Your task to perform on an android device: Open Chrome and go to settings Image 0: 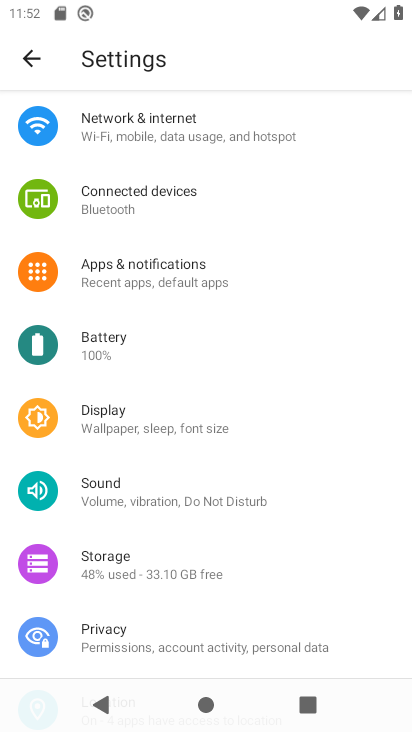
Step 0: press home button
Your task to perform on an android device: Open Chrome and go to settings Image 1: 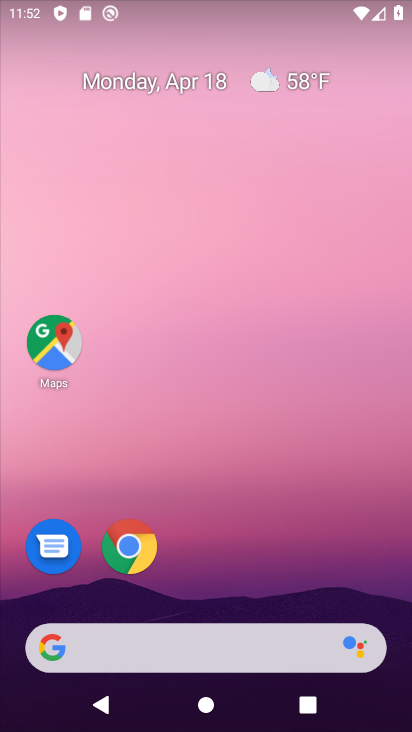
Step 1: click (126, 556)
Your task to perform on an android device: Open Chrome and go to settings Image 2: 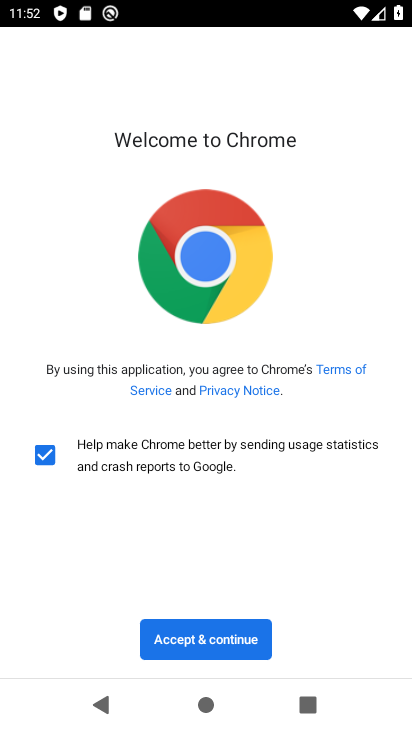
Step 2: click (199, 639)
Your task to perform on an android device: Open Chrome and go to settings Image 3: 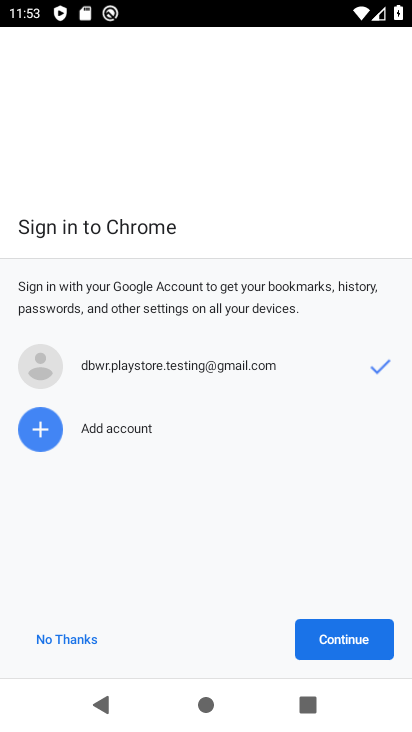
Step 3: click (340, 644)
Your task to perform on an android device: Open Chrome and go to settings Image 4: 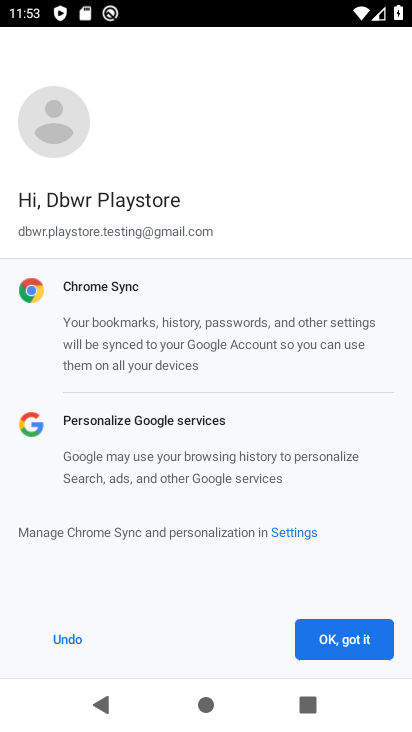
Step 4: click (332, 640)
Your task to perform on an android device: Open Chrome and go to settings Image 5: 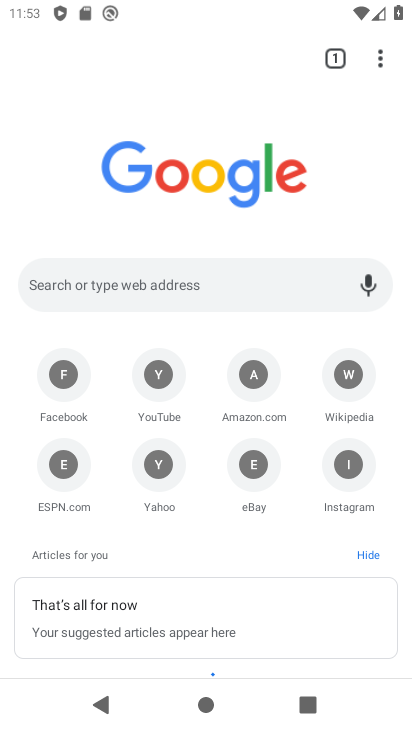
Step 5: click (381, 54)
Your task to perform on an android device: Open Chrome and go to settings Image 6: 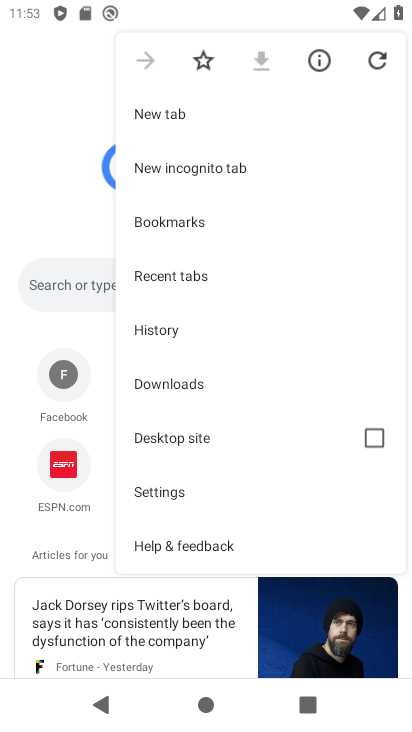
Step 6: click (173, 501)
Your task to perform on an android device: Open Chrome and go to settings Image 7: 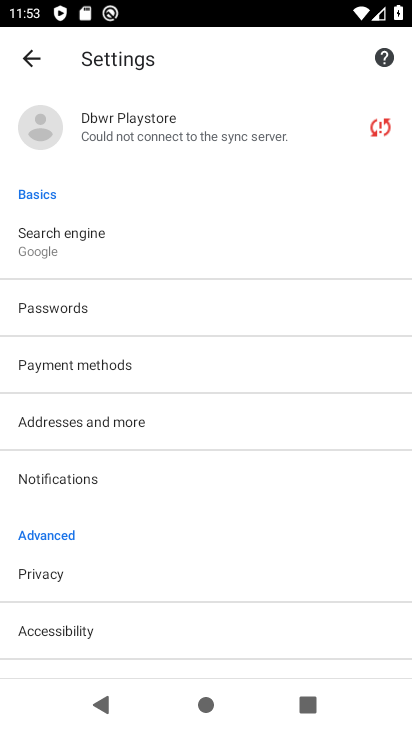
Step 7: task complete